Your task to perform on an android device: Go to calendar. Show me events next week Image 0: 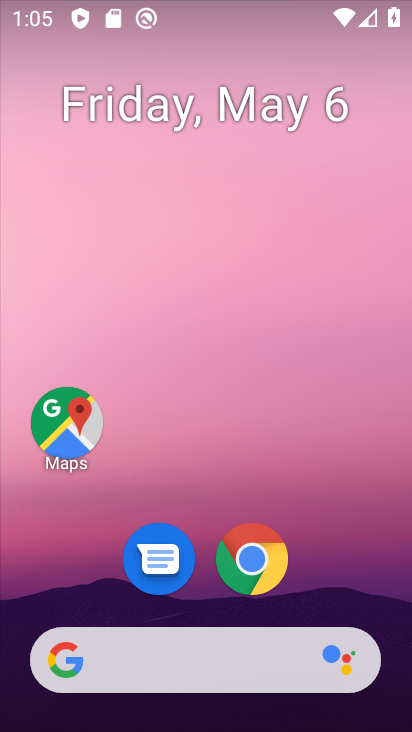
Step 0: drag from (143, 665) to (306, 46)
Your task to perform on an android device: Go to calendar. Show me events next week Image 1: 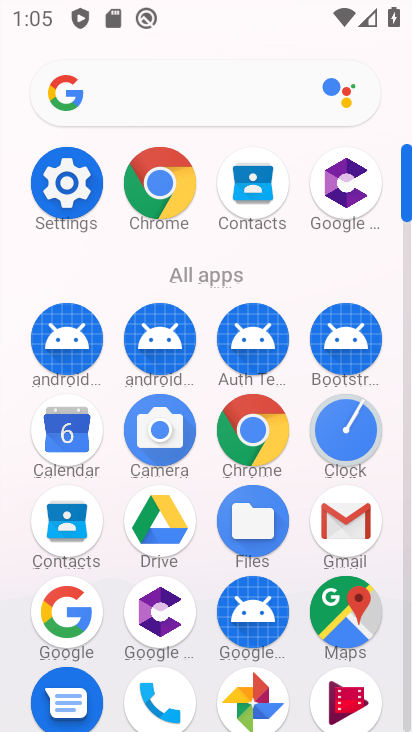
Step 1: click (67, 448)
Your task to perform on an android device: Go to calendar. Show me events next week Image 2: 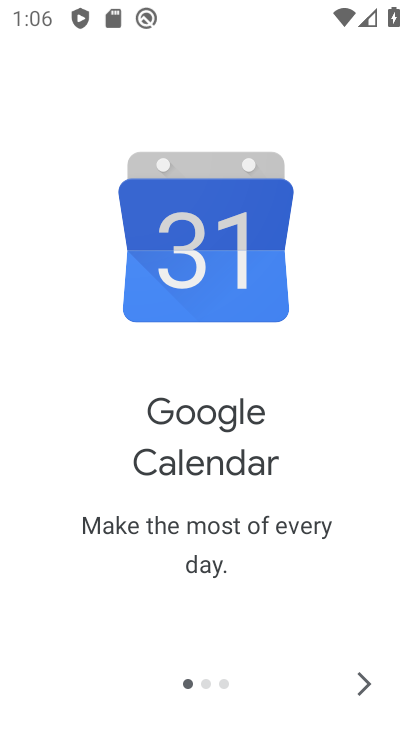
Step 2: click (353, 679)
Your task to perform on an android device: Go to calendar. Show me events next week Image 3: 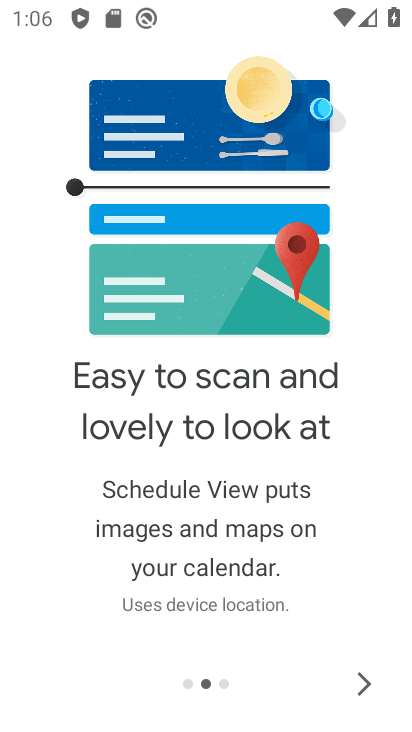
Step 3: click (353, 679)
Your task to perform on an android device: Go to calendar. Show me events next week Image 4: 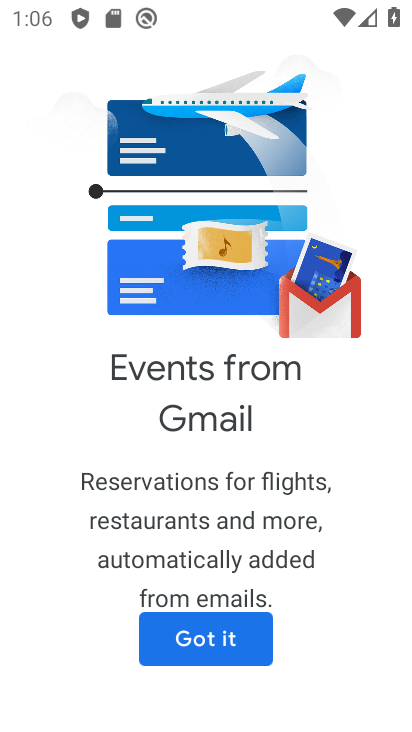
Step 4: click (198, 639)
Your task to perform on an android device: Go to calendar. Show me events next week Image 5: 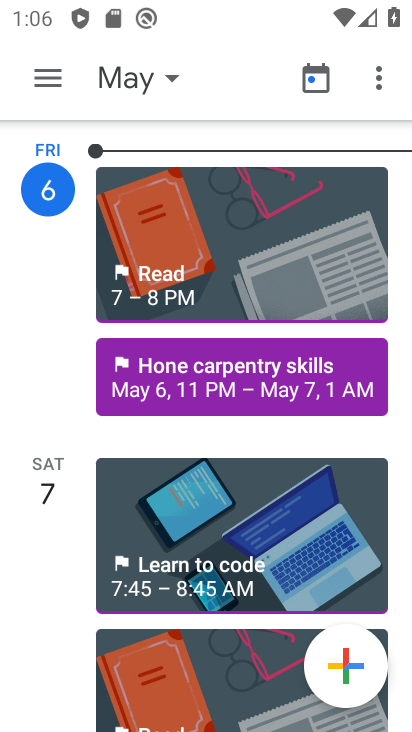
Step 5: click (109, 77)
Your task to perform on an android device: Go to calendar. Show me events next week Image 6: 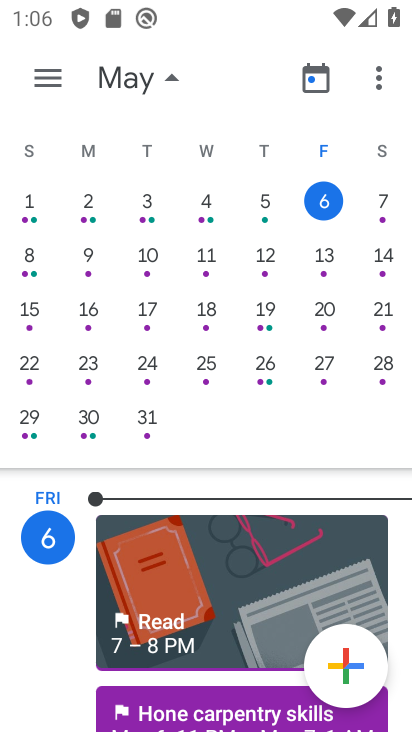
Step 6: click (26, 255)
Your task to perform on an android device: Go to calendar. Show me events next week Image 7: 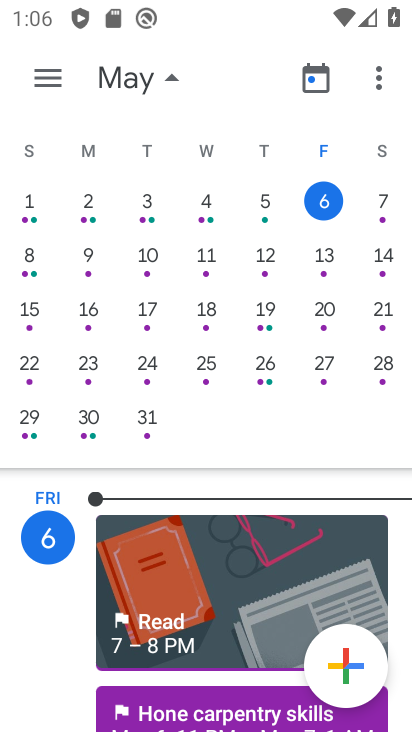
Step 7: click (30, 266)
Your task to perform on an android device: Go to calendar. Show me events next week Image 8: 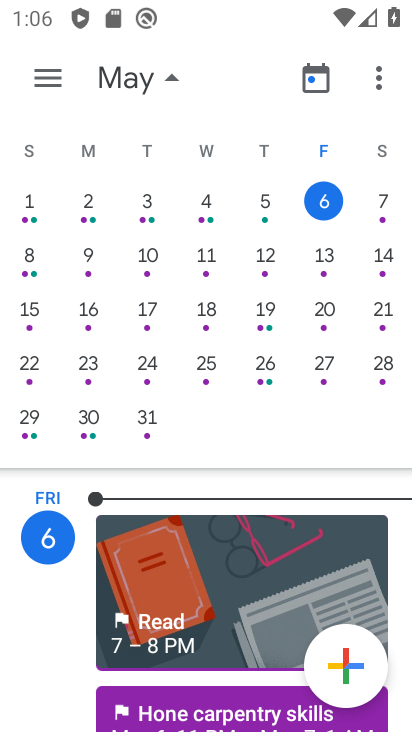
Step 8: click (33, 251)
Your task to perform on an android device: Go to calendar. Show me events next week Image 9: 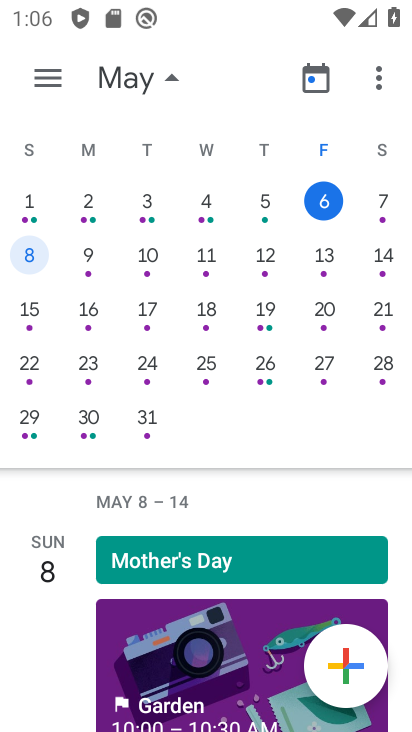
Step 9: click (55, 76)
Your task to perform on an android device: Go to calendar. Show me events next week Image 10: 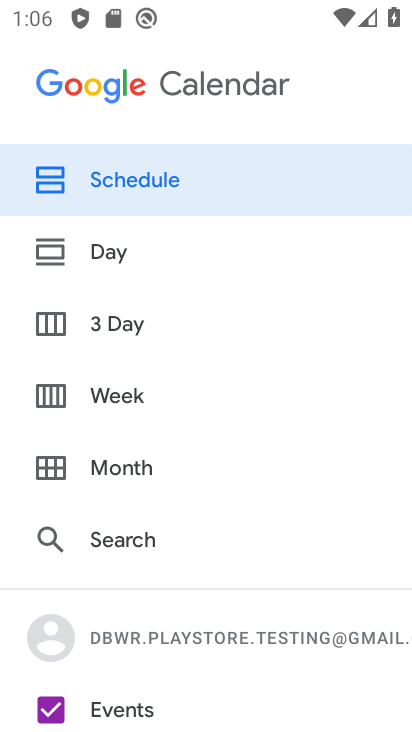
Step 10: click (137, 395)
Your task to perform on an android device: Go to calendar. Show me events next week Image 11: 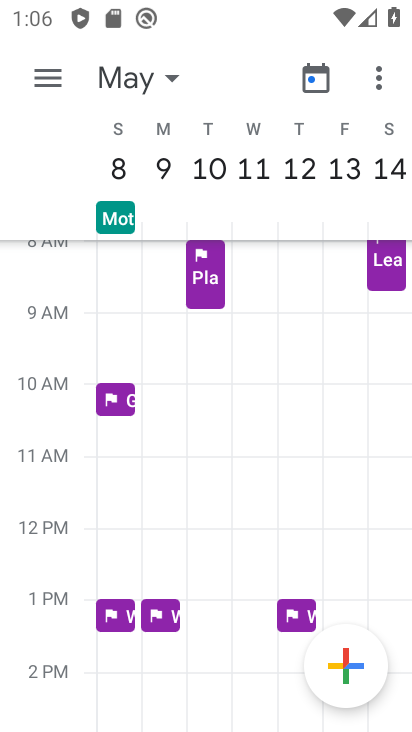
Step 11: click (52, 74)
Your task to perform on an android device: Go to calendar. Show me events next week Image 12: 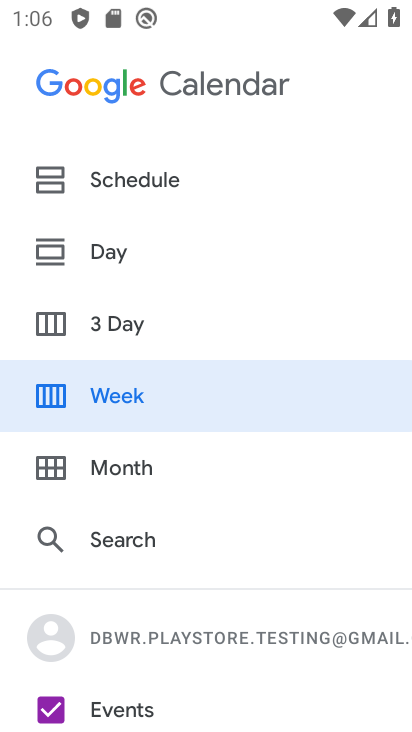
Step 12: click (109, 183)
Your task to perform on an android device: Go to calendar. Show me events next week Image 13: 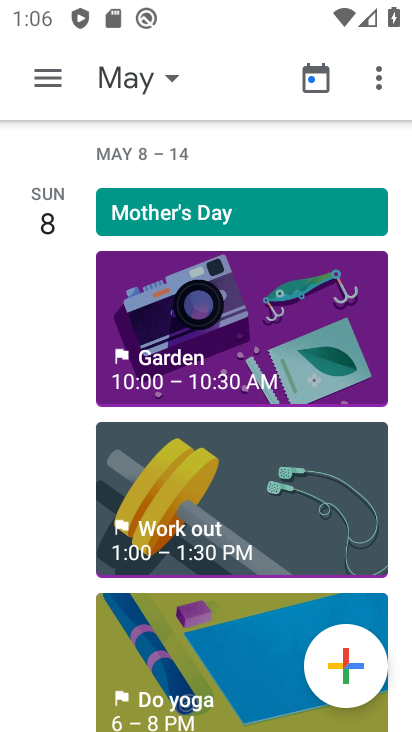
Step 13: click (243, 326)
Your task to perform on an android device: Go to calendar. Show me events next week Image 14: 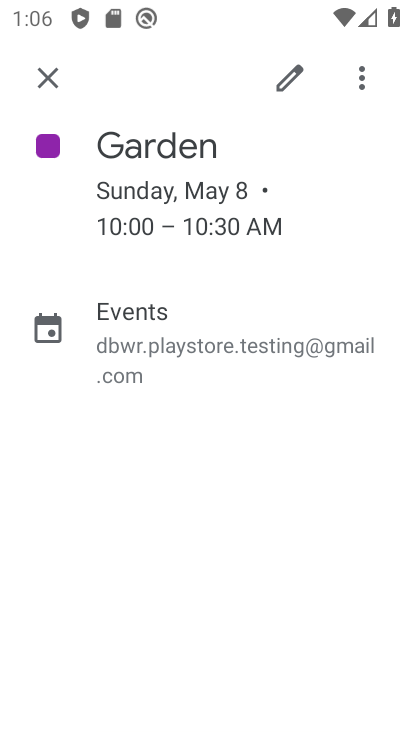
Step 14: task complete